Your task to perform on an android device: turn off priority inbox in the gmail app Image 0: 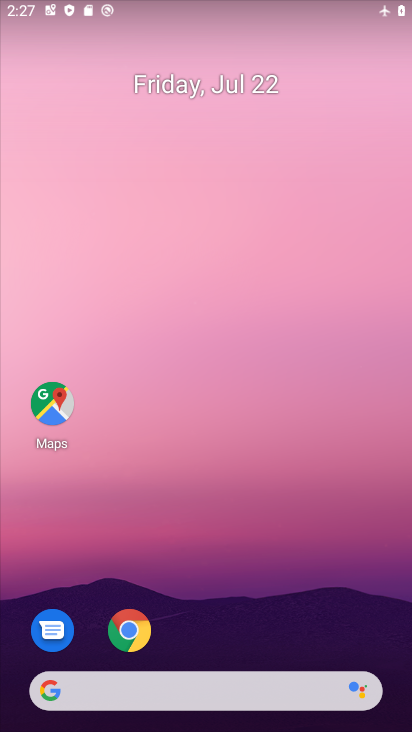
Step 0: drag from (243, 668) to (121, 7)
Your task to perform on an android device: turn off priority inbox in the gmail app Image 1: 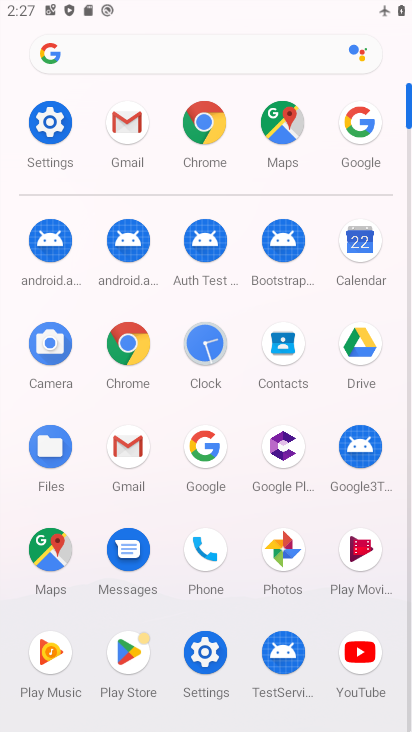
Step 1: click (138, 454)
Your task to perform on an android device: turn off priority inbox in the gmail app Image 2: 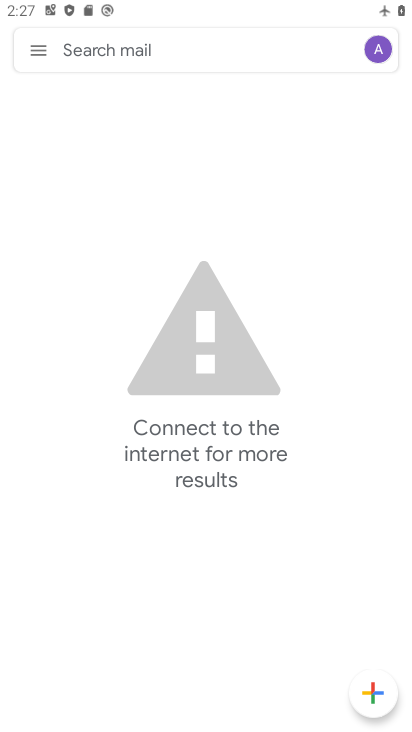
Step 2: click (26, 49)
Your task to perform on an android device: turn off priority inbox in the gmail app Image 3: 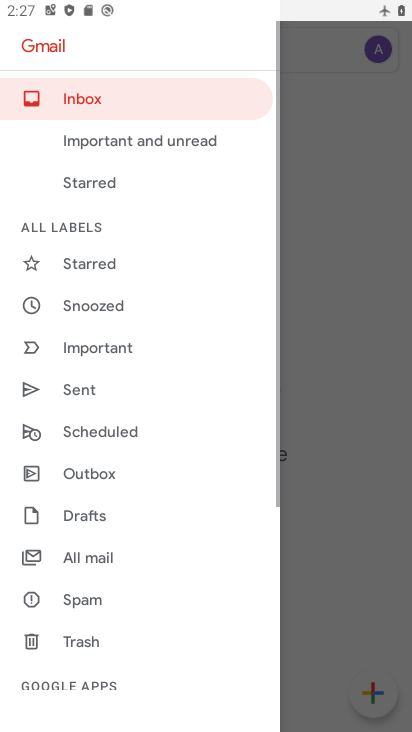
Step 3: drag from (119, 622) to (39, 16)
Your task to perform on an android device: turn off priority inbox in the gmail app Image 4: 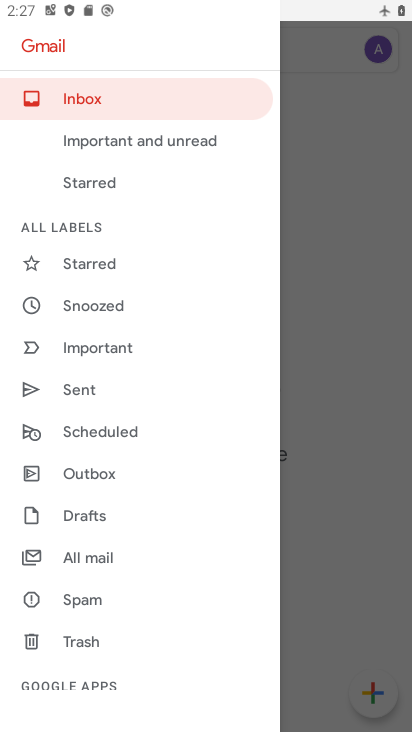
Step 4: drag from (98, 638) to (39, 169)
Your task to perform on an android device: turn off priority inbox in the gmail app Image 5: 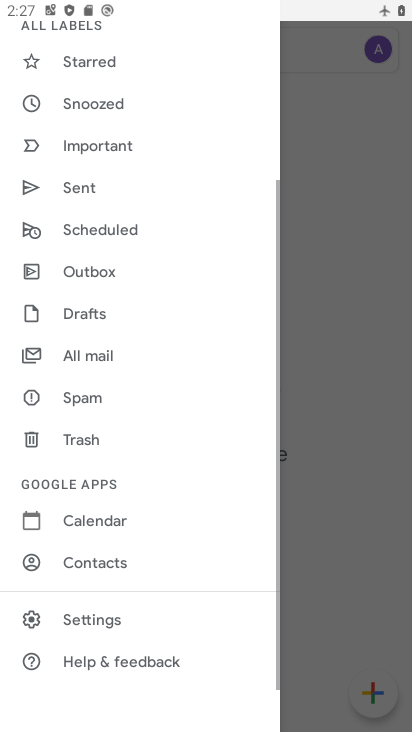
Step 5: click (89, 608)
Your task to perform on an android device: turn off priority inbox in the gmail app Image 6: 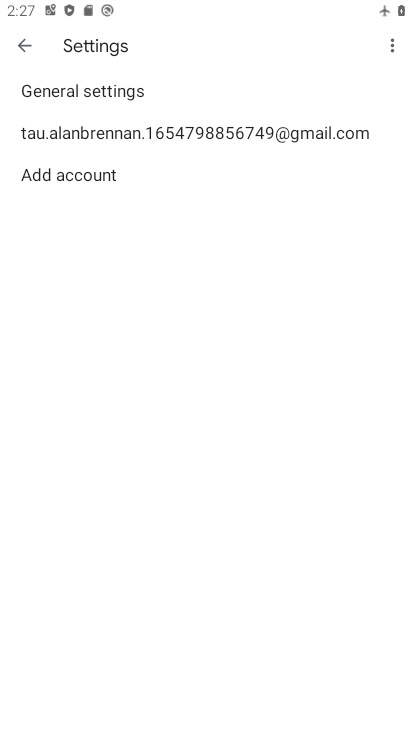
Step 6: click (55, 139)
Your task to perform on an android device: turn off priority inbox in the gmail app Image 7: 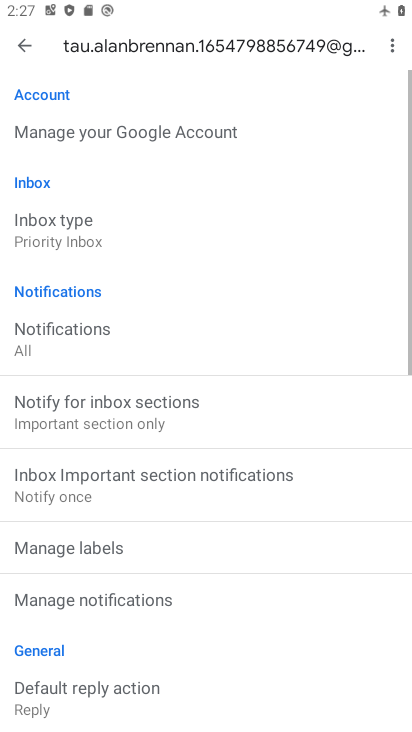
Step 7: click (93, 227)
Your task to perform on an android device: turn off priority inbox in the gmail app Image 8: 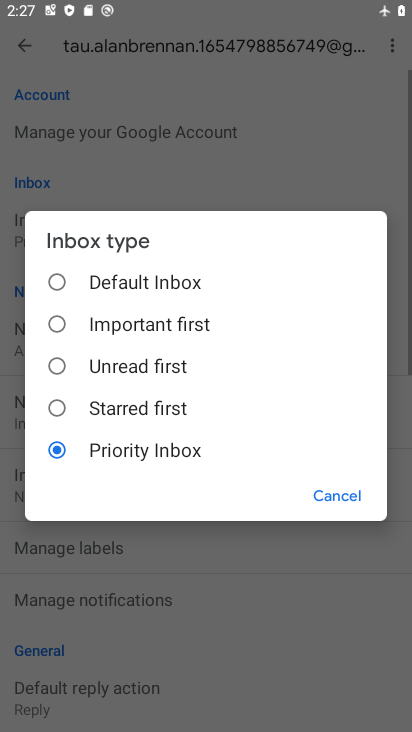
Step 8: click (107, 265)
Your task to perform on an android device: turn off priority inbox in the gmail app Image 9: 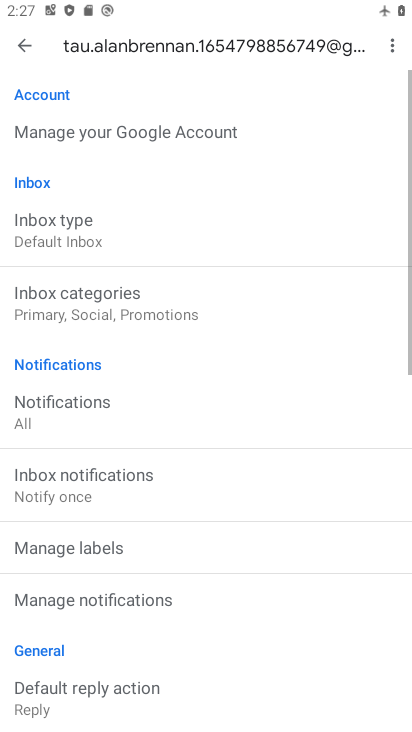
Step 9: task complete